Your task to perform on an android device: Open the map Image 0: 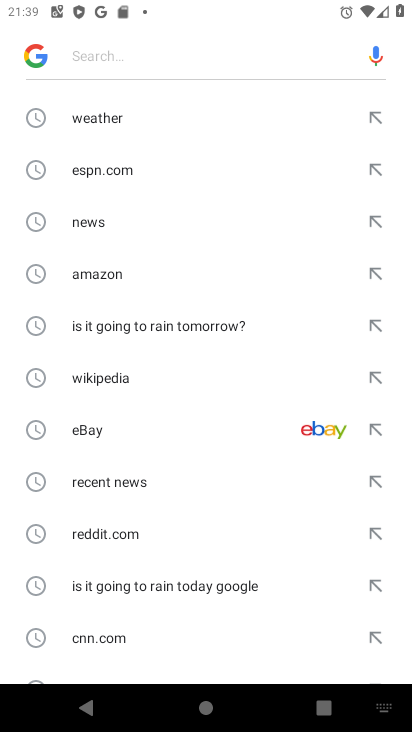
Step 0: press home button
Your task to perform on an android device: Open the map Image 1: 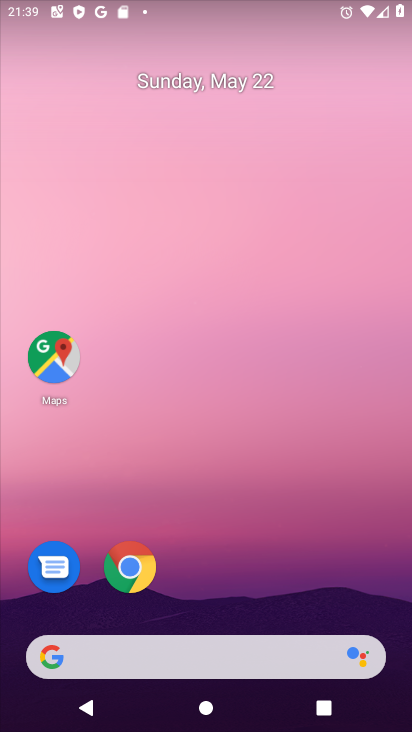
Step 1: click (64, 375)
Your task to perform on an android device: Open the map Image 2: 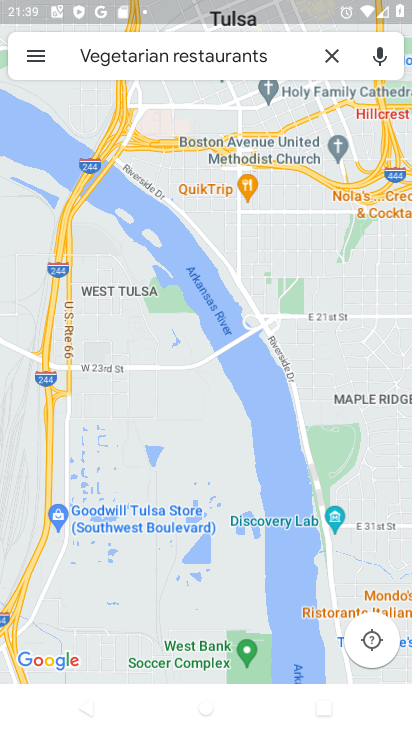
Step 2: click (273, 328)
Your task to perform on an android device: Open the map Image 3: 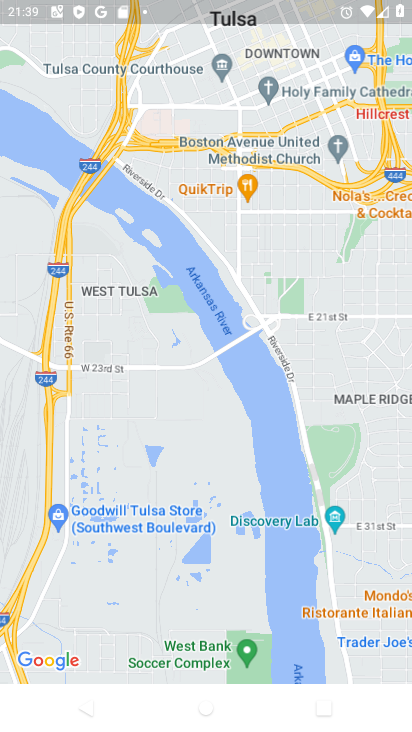
Step 3: task complete